Your task to perform on an android device: Open Google Maps and go to "Timeline" Image 0: 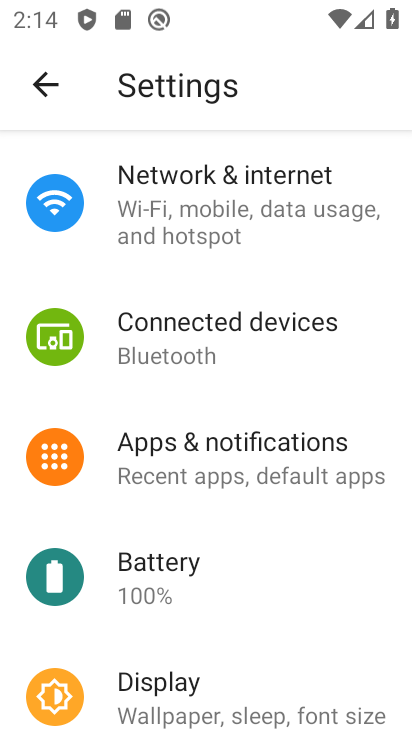
Step 0: press home button
Your task to perform on an android device: Open Google Maps and go to "Timeline" Image 1: 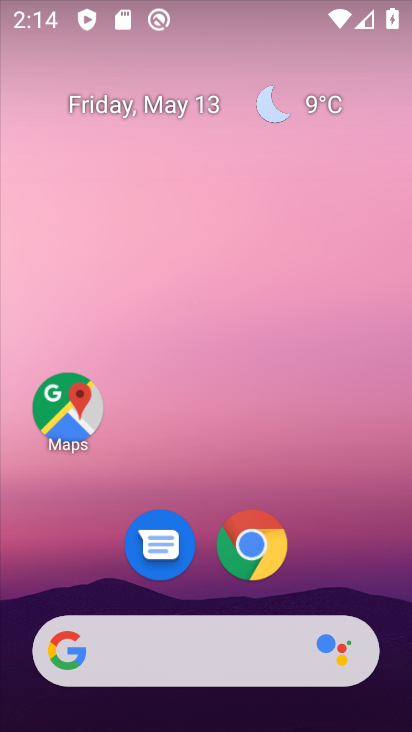
Step 1: click (66, 414)
Your task to perform on an android device: Open Google Maps and go to "Timeline" Image 2: 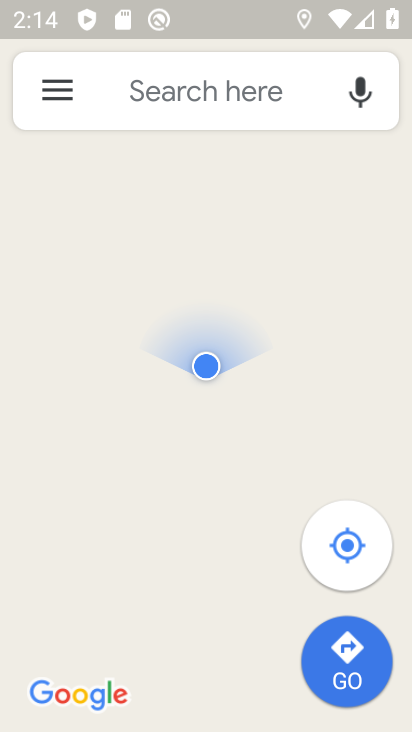
Step 2: click (160, 86)
Your task to perform on an android device: Open Google Maps and go to "Timeline" Image 3: 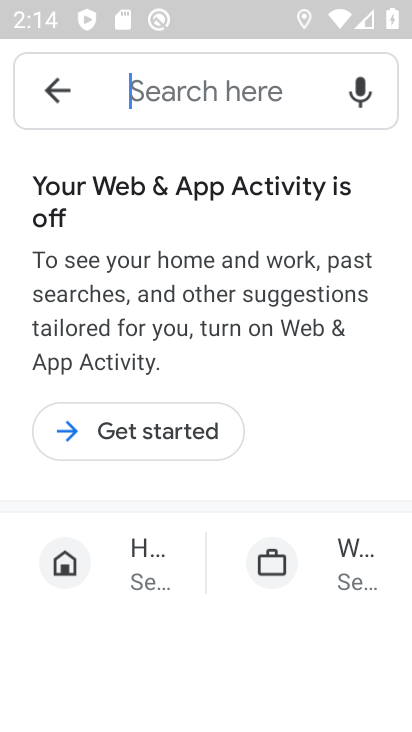
Step 3: click (51, 94)
Your task to perform on an android device: Open Google Maps and go to "Timeline" Image 4: 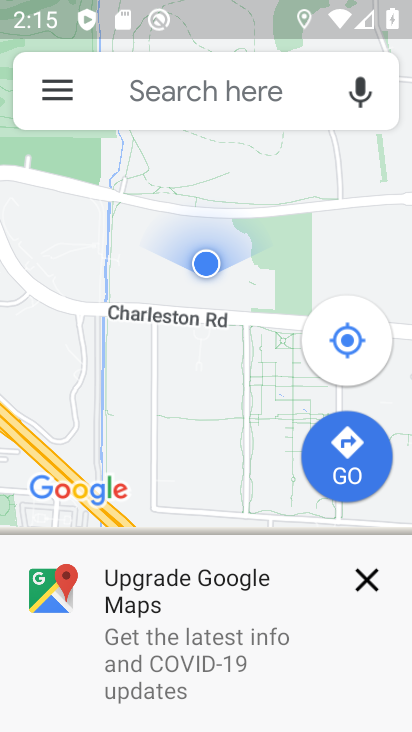
Step 4: click (57, 85)
Your task to perform on an android device: Open Google Maps and go to "Timeline" Image 5: 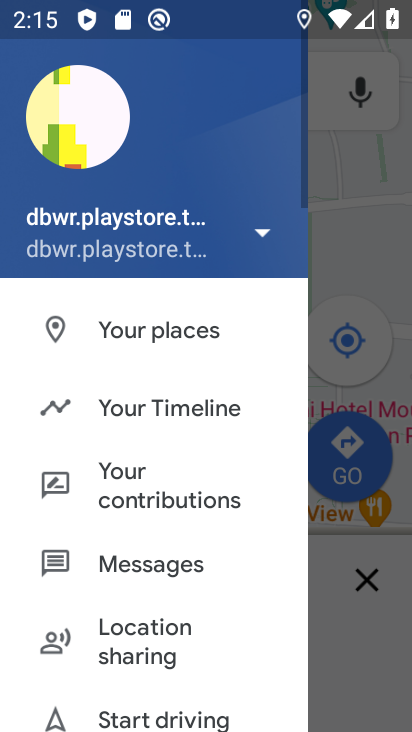
Step 5: click (95, 400)
Your task to perform on an android device: Open Google Maps and go to "Timeline" Image 6: 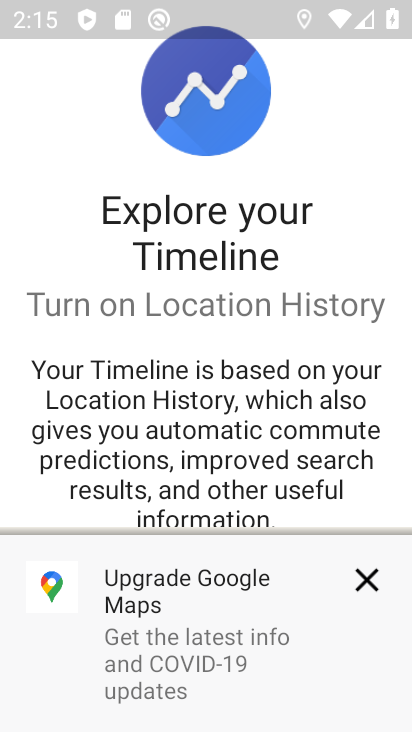
Step 6: click (360, 577)
Your task to perform on an android device: Open Google Maps and go to "Timeline" Image 7: 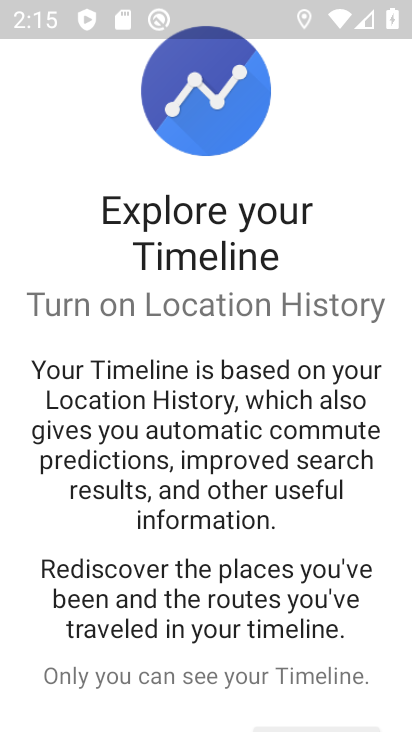
Step 7: drag from (177, 612) to (159, 263)
Your task to perform on an android device: Open Google Maps and go to "Timeline" Image 8: 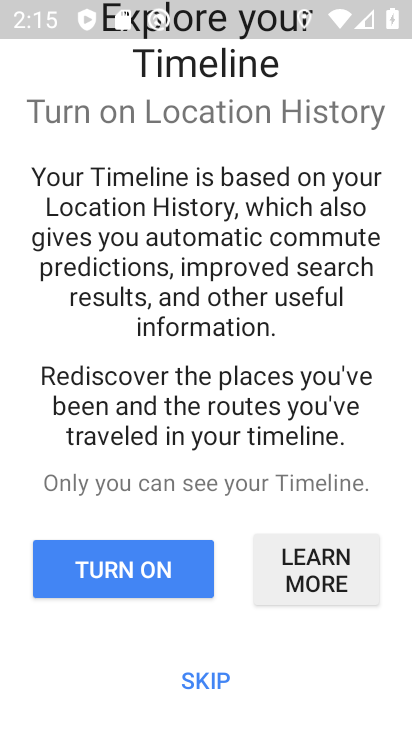
Step 8: click (114, 571)
Your task to perform on an android device: Open Google Maps and go to "Timeline" Image 9: 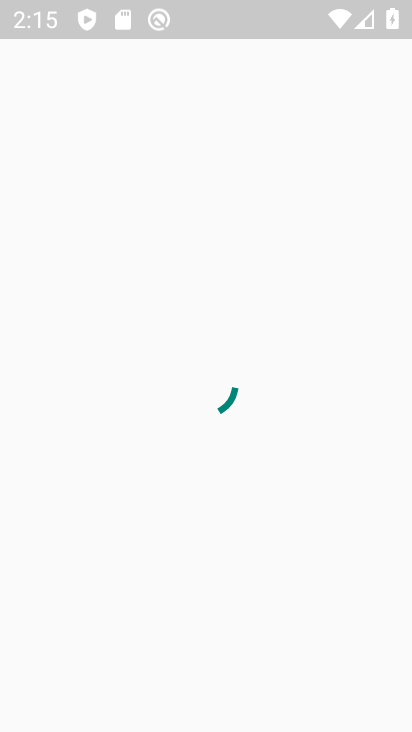
Step 9: task complete